Your task to perform on an android device: Search for Mexican restaurants on Maps Image 0: 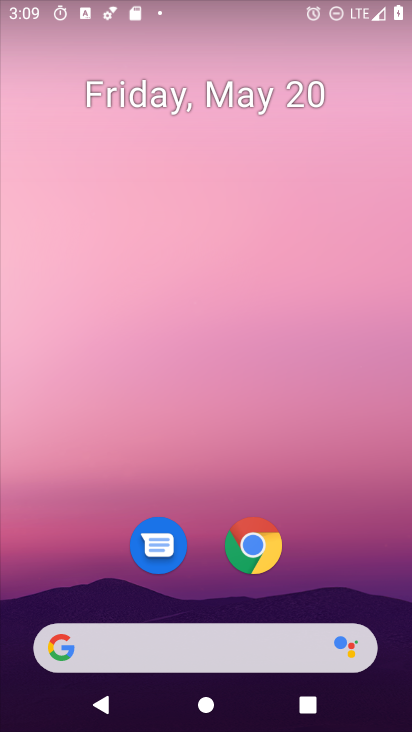
Step 0: drag from (282, 645) to (313, 51)
Your task to perform on an android device: Search for Mexican restaurants on Maps Image 1: 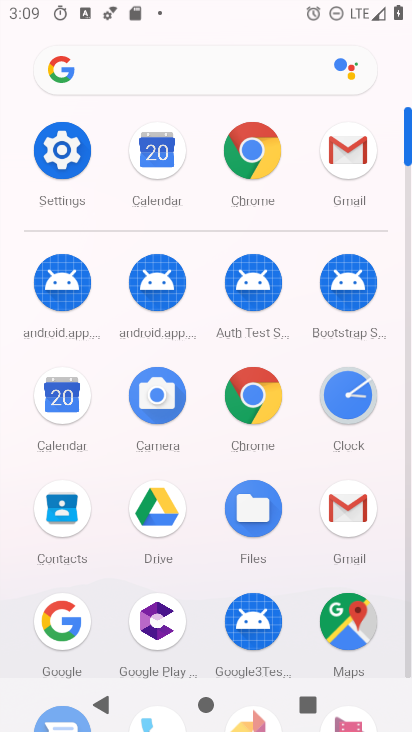
Step 1: click (368, 620)
Your task to perform on an android device: Search for Mexican restaurants on Maps Image 2: 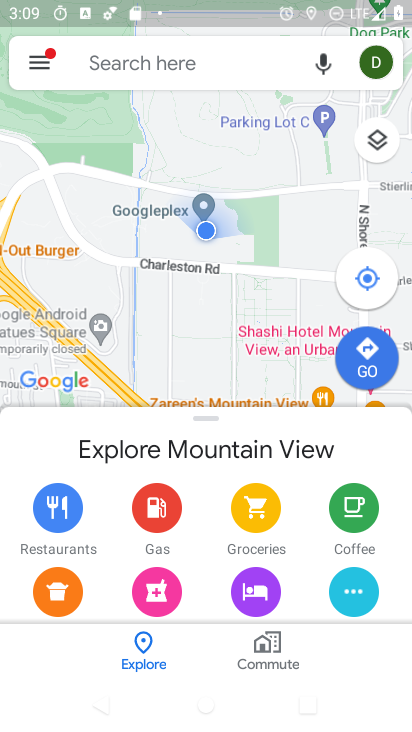
Step 2: click (286, 64)
Your task to perform on an android device: Search for Mexican restaurants on Maps Image 3: 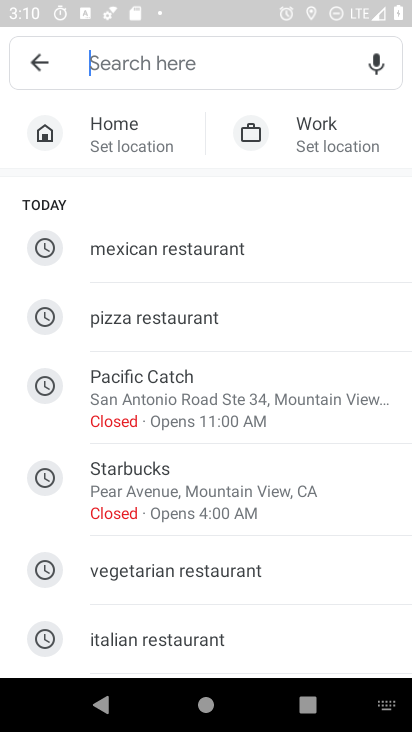
Step 3: click (185, 264)
Your task to perform on an android device: Search for Mexican restaurants on Maps Image 4: 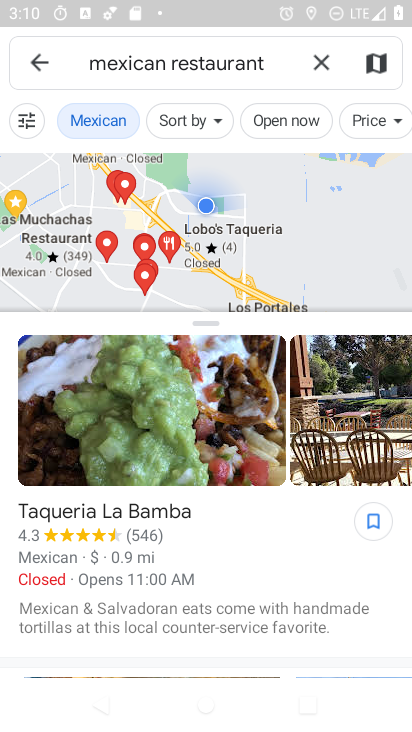
Step 4: task complete